Your task to perform on an android device: turn vacation reply on in the gmail app Image 0: 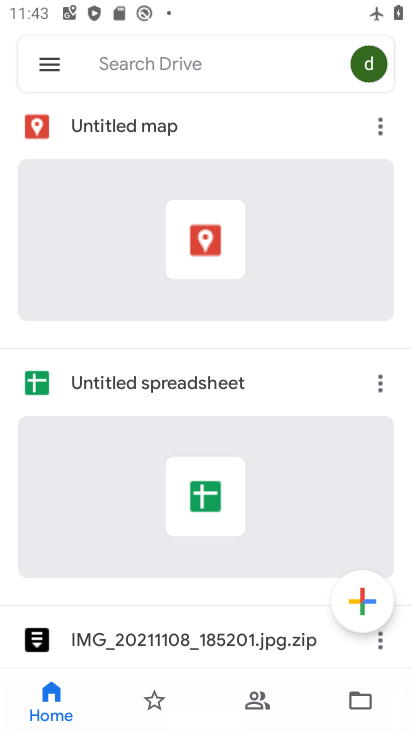
Step 0: press home button
Your task to perform on an android device: turn vacation reply on in the gmail app Image 1: 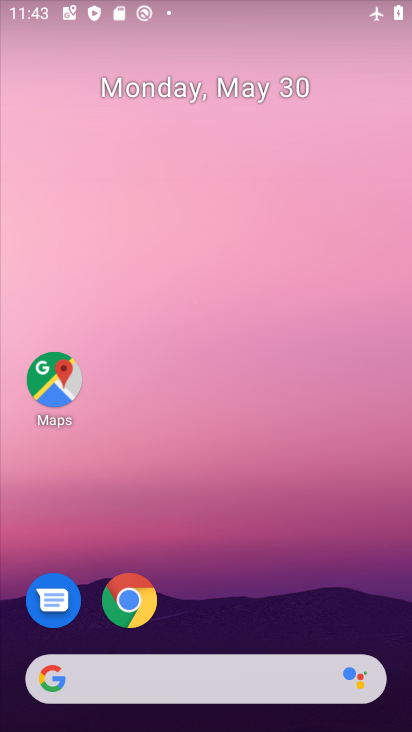
Step 1: drag from (215, 723) to (224, 116)
Your task to perform on an android device: turn vacation reply on in the gmail app Image 2: 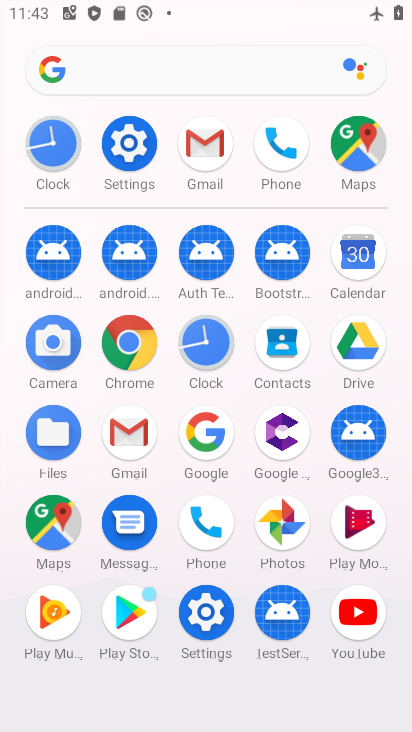
Step 2: click (129, 439)
Your task to perform on an android device: turn vacation reply on in the gmail app Image 3: 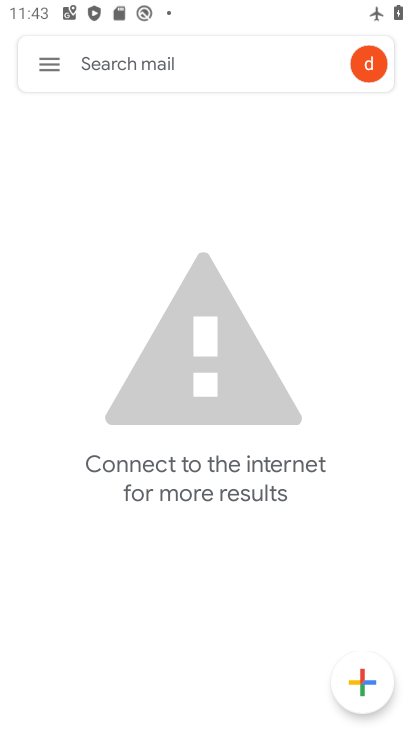
Step 3: click (47, 62)
Your task to perform on an android device: turn vacation reply on in the gmail app Image 4: 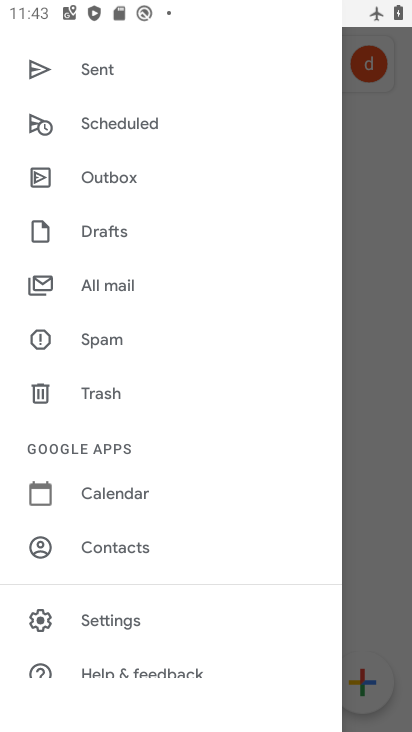
Step 4: click (98, 618)
Your task to perform on an android device: turn vacation reply on in the gmail app Image 5: 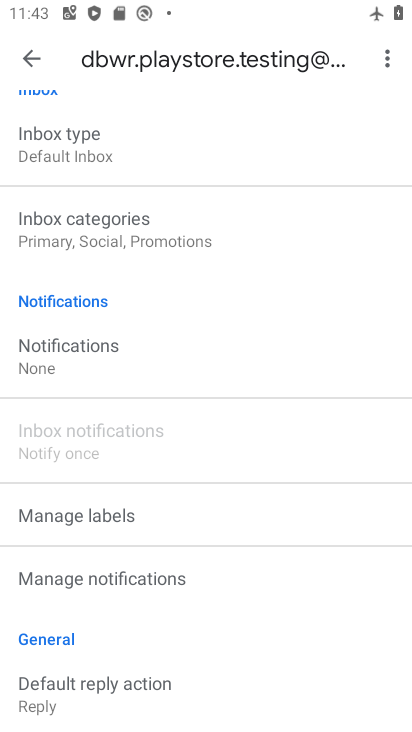
Step 5: drag from (145, 653) to (145, 235)
Your task to perform on an android device: turn vacation reply on in the gmail app Image 6: 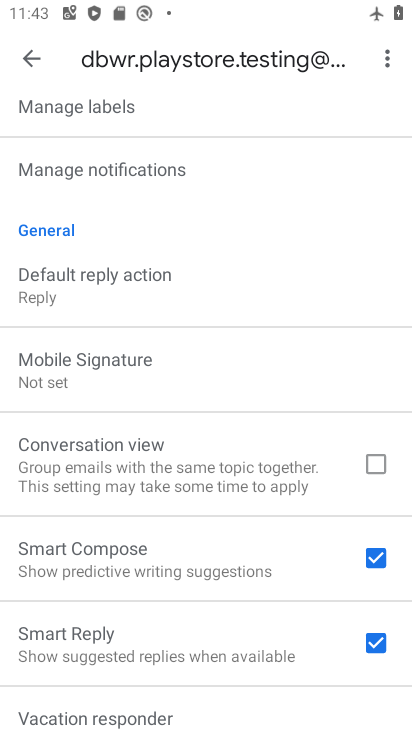
Step 6: drag from (143, 714) to (149, 244)
Your task to perform on an android device: turn vacation reply on in the gmail app Image 7: 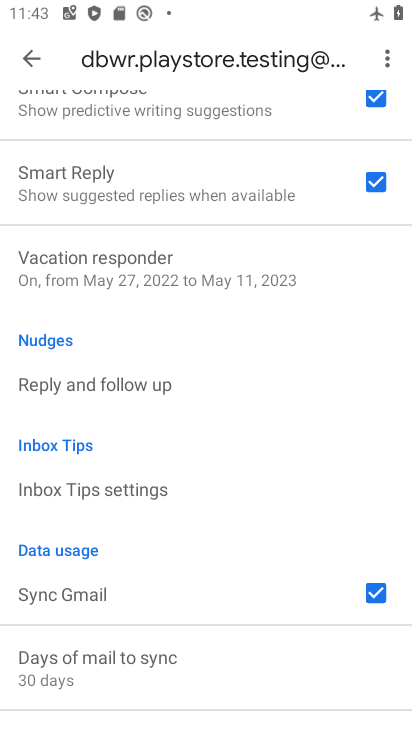
Step 7: click (147, 259)
Your task to perform on an android device: turn vacation reply on in the gmail app Image 8: 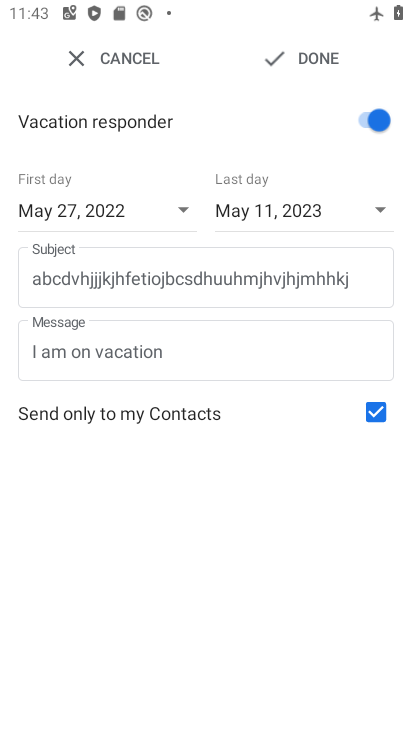
Step 8: task complete